Your task to perform on an android device: open wifi settings Image 0: 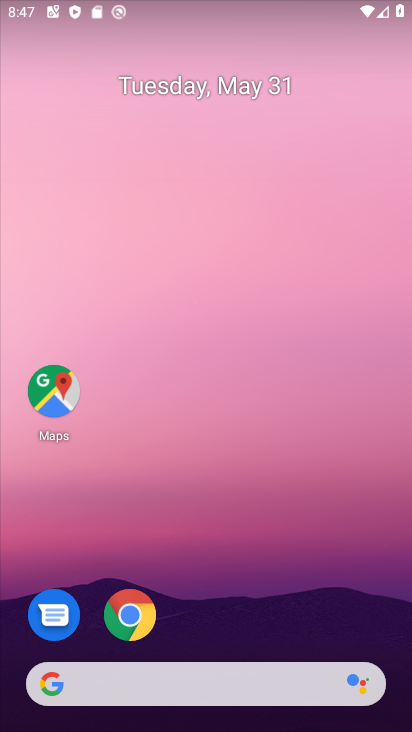
Step 0: drag from (379, 633) to (311, 174)
Your task to perform on an android device: open wifi settings Image 1: 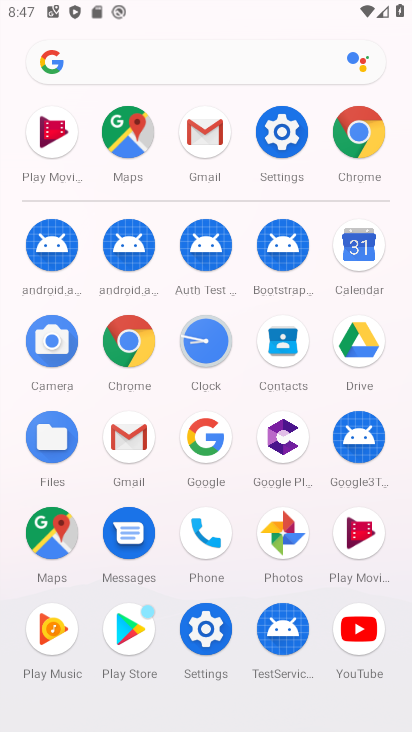
Step 1: click (201, 630)
Your task to perform on an android device: open wifi settings Image 2: 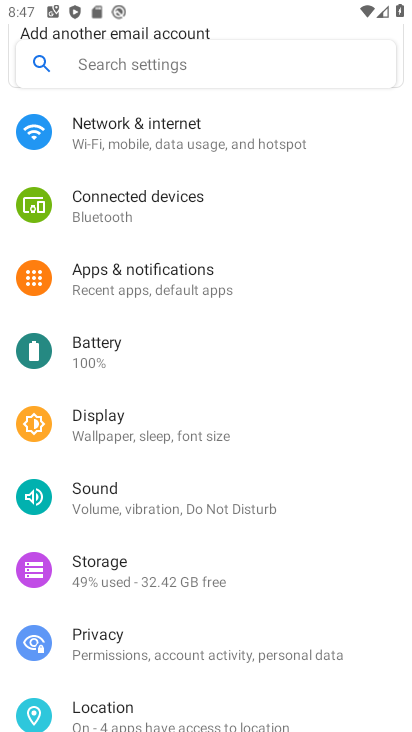
Step 2: click (118, 139)
Your task to perform on an android device: open wifi settings Image 3: 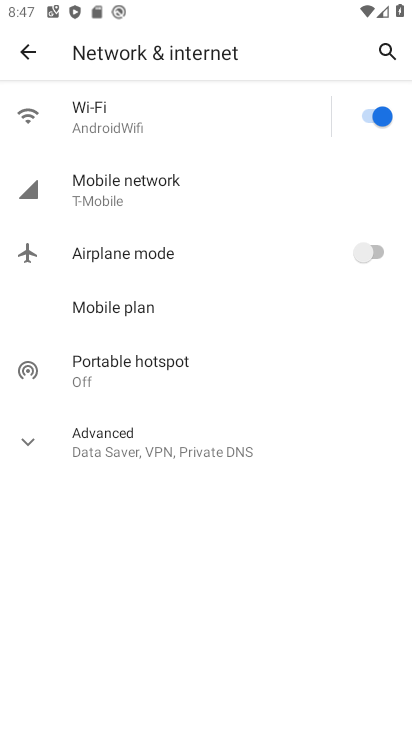
Step 3: click (79, 118)
Your task to perform on an android device: open wifi settings Image 4: 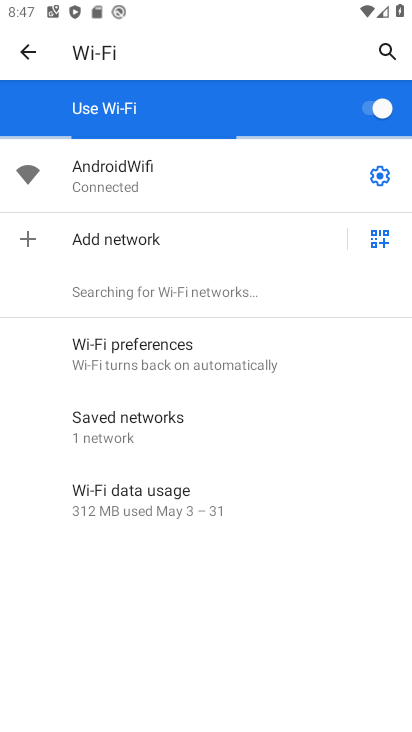
Step 4: click (378, 175)
Your task to perform on an android device: open wifi settings Image 5: 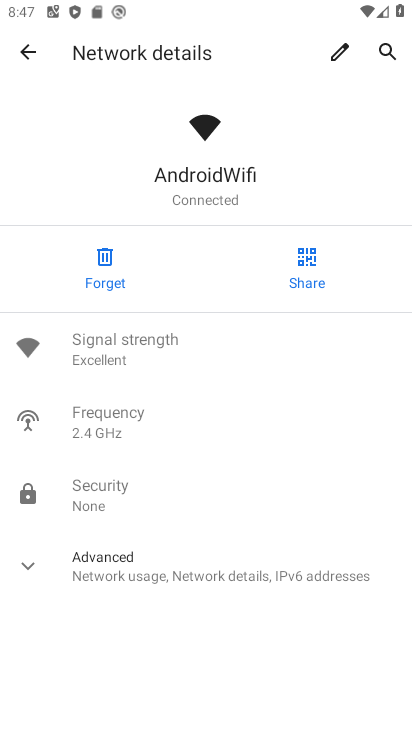
Step 5: click (25, 563)
Your task to perform on an android device: open wifi settings Image 6: 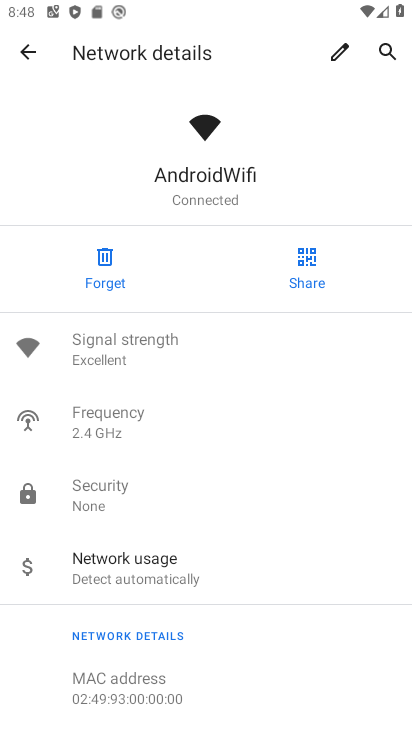
Step 6: task complete